Your task to perform on an android device: change the clock display to digital Image 0: 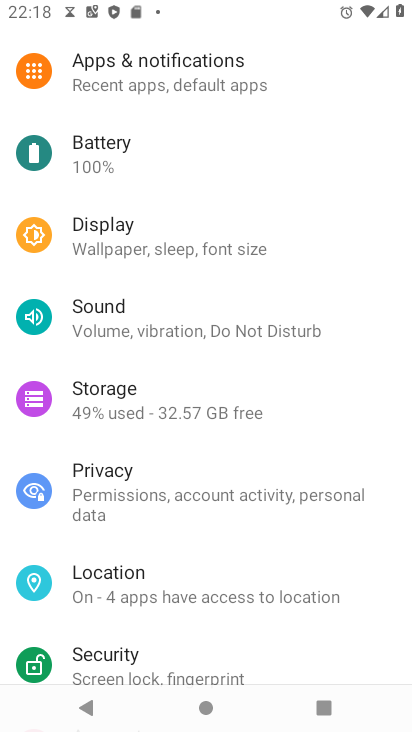
Step 0: press home button
Your task to perform on an android device: change the clock display to digital Image 1: 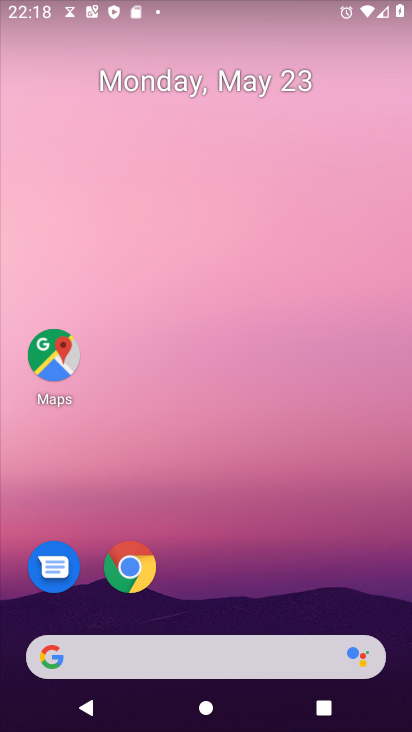
Step 1: drag from (270, 565) to (292, 221)
Your task to perform on an android device: change the clock display to digital Image 2: 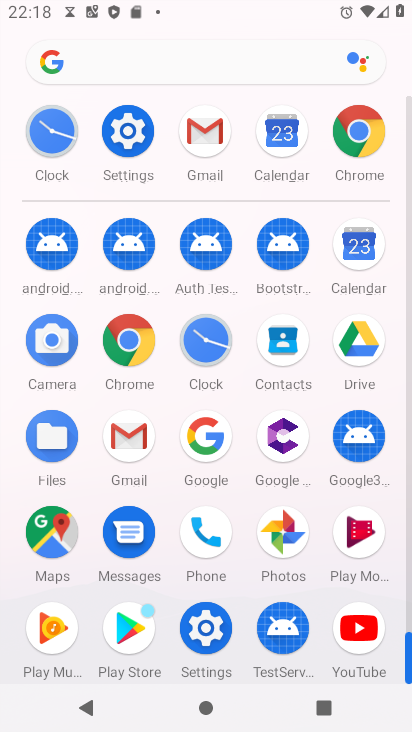
Step 2: click (201, 334)
Your task to perform on an android device: change the clock display to digital Image 3: 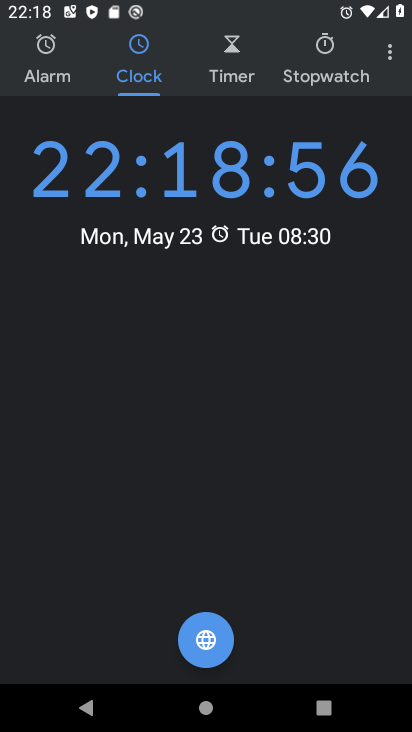
Step 3: click (383, 52)
Your task to perform on an android device: change the clock display to digital Image 4: 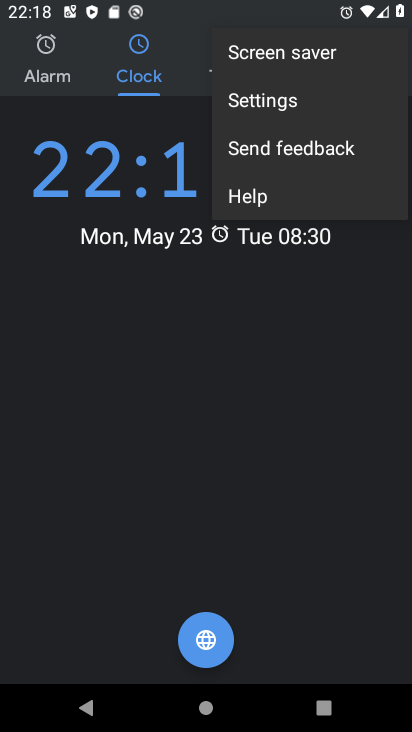
Step 4: click (284, 104)
Your task to perform on an android device: change the clock display to digital Image 5: 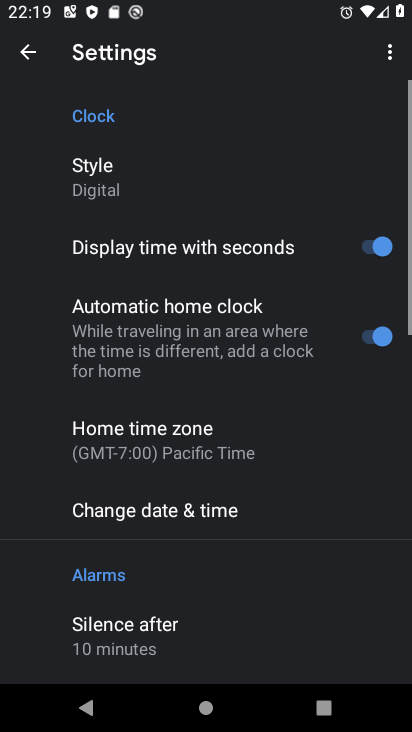
Step 5: click (111, 180)
Your task to perform on an android device: change the clock display to digital Image 6: 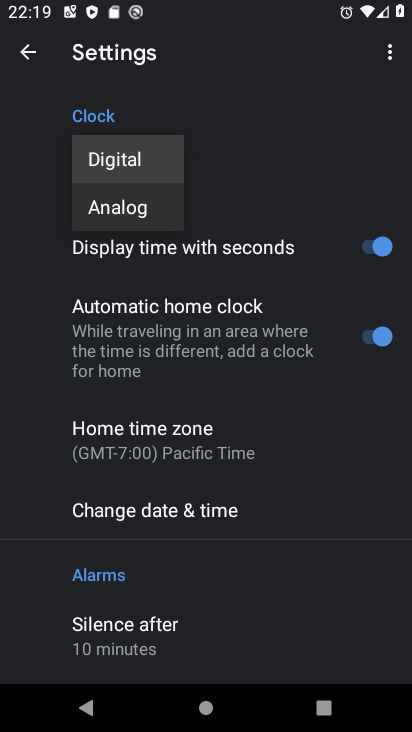
Step 6: click (146, 156)
Your task to perform on an android device: change the clock display to digital Image 7: 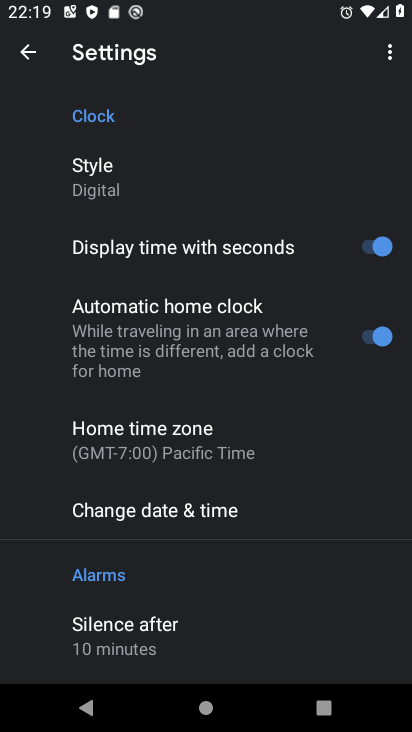
Step 7: task complete